Your task to perform on an android device: turn smart compose on in the gmail app Image 0: 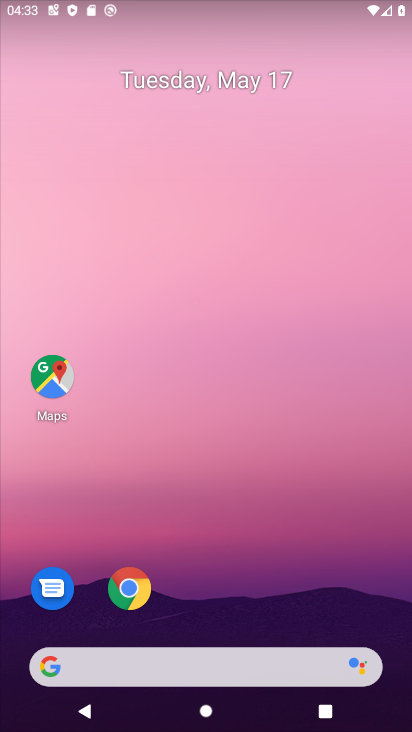
Step 0: drag from (239, 580) to (212, 170)
Your task to perform on an android device: turn smart compose on in the gmail app Image 1: 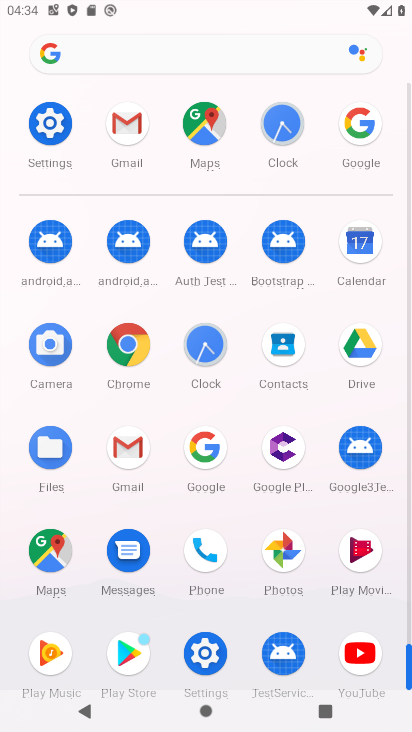
Step 1: click (126, 123)
Your task to perform on an android device: turn smart compose on in the gmail app Image 2: 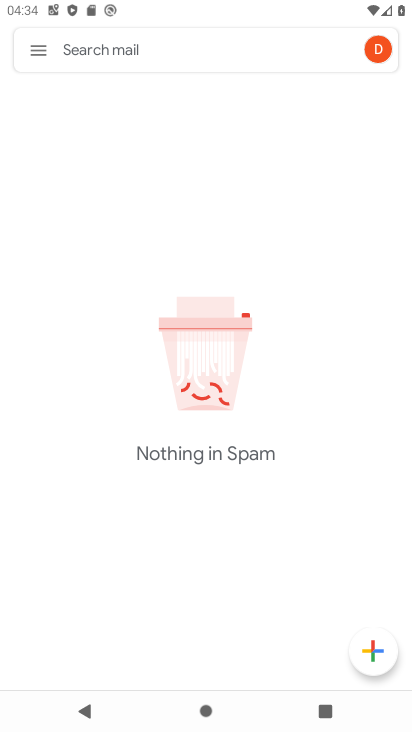
Step 2: click (41, 51)
Your task to perform on an android device: turn smart compose on in the gmail app Image 3: 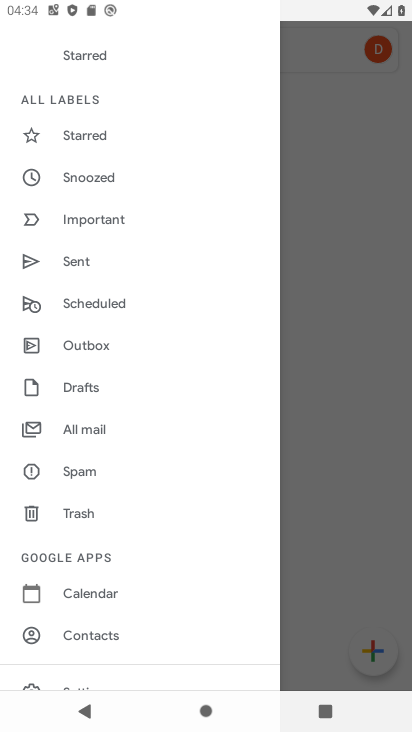
Step 3: drag from (99, 326) to (112, 277)
Your task to perform on an android device: turn smart compose on in the gmail app Image 4: 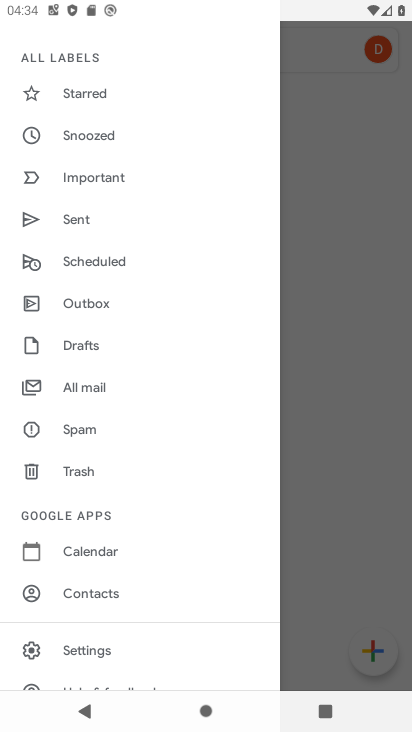
Step 4: drag from (90, 451) to (113, 372)
Your task to perform on an android device: turn smart compose on in the gmail app Image 5: 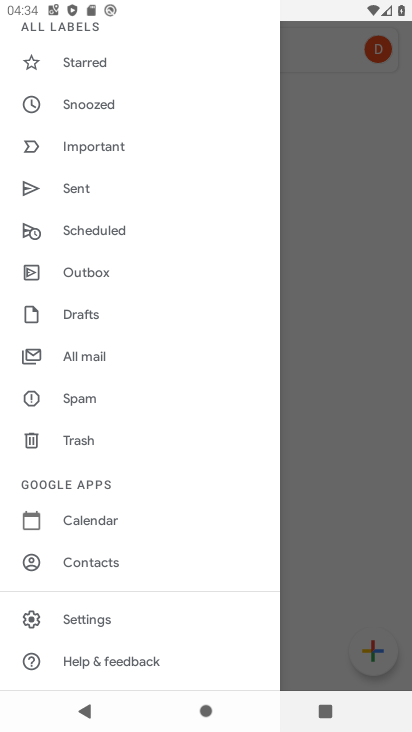
Step 5: drag from (75, 536) to (115, 454)
Your task to perform on an android device: turn smart compose on in the gmail app Image 6: 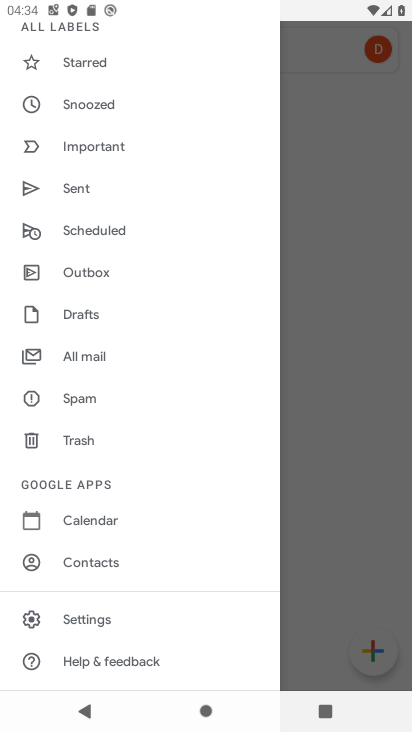
Step 6: click (86, 623)
Your task to perform on an android device: turn smart compose on in the gmail app Image 7: 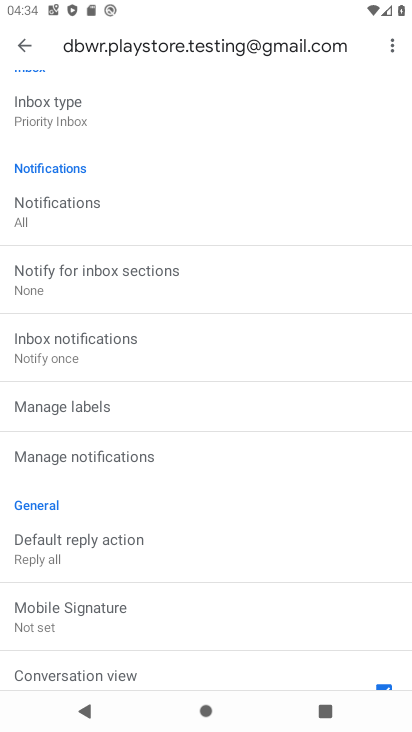
Step 7: task complete